Your task to perform on an android device: Go to sound settings Image 0: 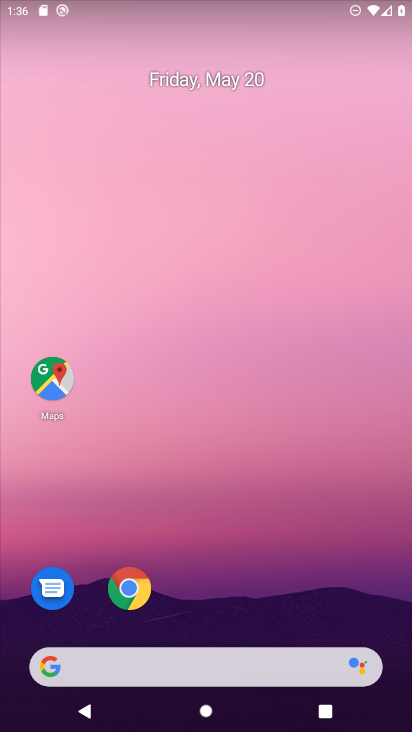
Step 0: drag from (394, 625) to (346, 71)
Your task to perform on an android device: Go to sound settings Image 1: 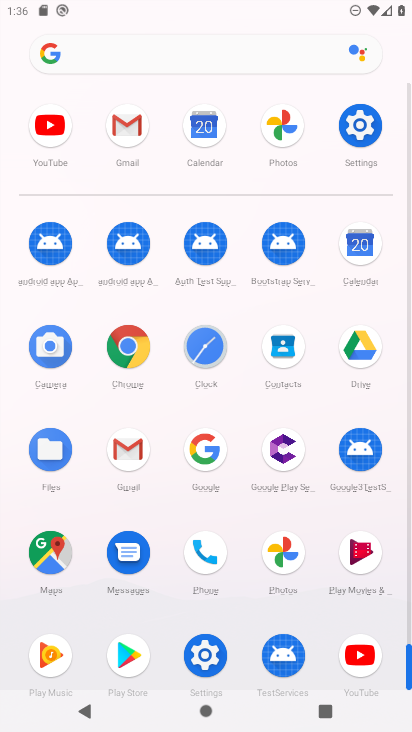
Step 1: click (204, 655)
Your task to perform on an android device: Go to sound settings Image 2: 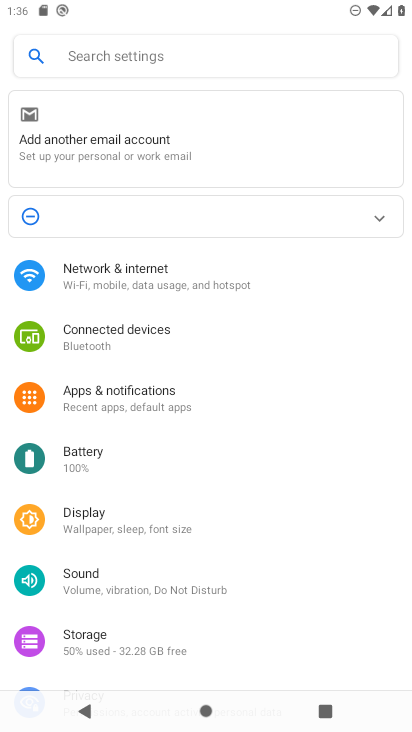
Step 2: click (87, 578)
Your task to perform on an android device: Go to sound settings Image 3: 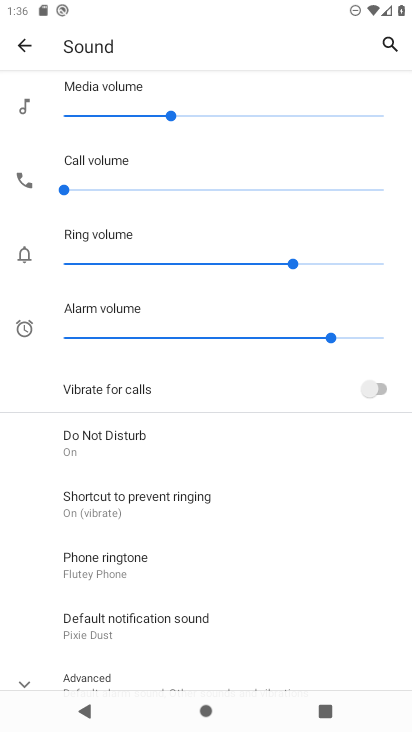
Step 3: drag from (302, 542) to (292, 408)
Your task to perform on an android device: Go to sound settings Image 4: 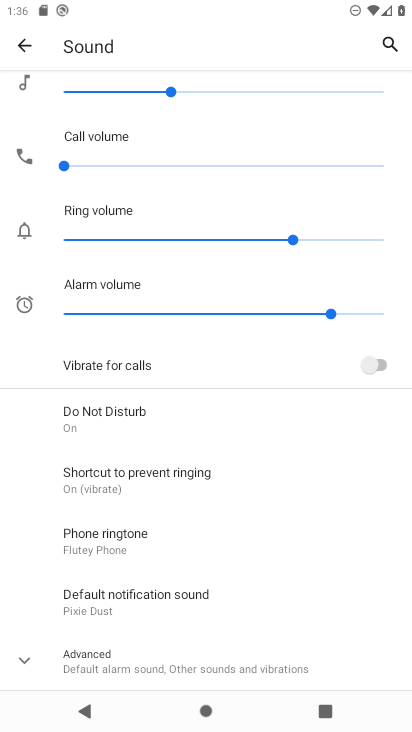
Step 4: click (19, 657)
Your task to perform on an android device: Go to sound settings Image 5: 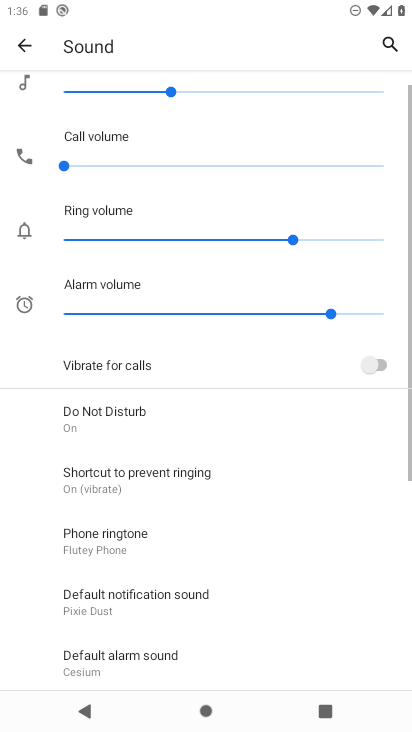
Step 5: task complete